Your task to perform on an android device: Open calendar and show me the third week of next month Image 0: 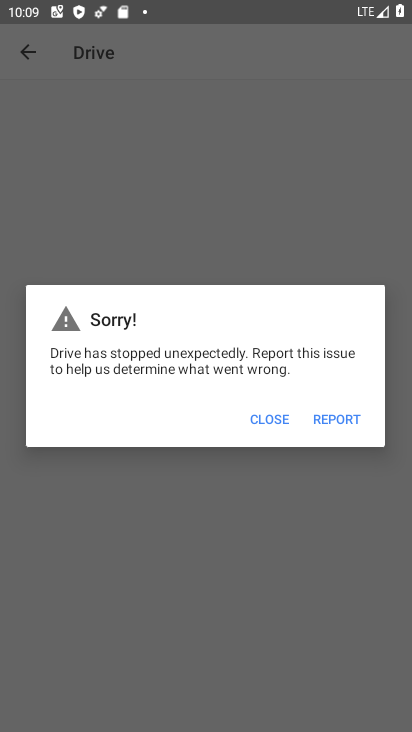
Step 0: press home button
Your task to perform on an android device: Open calendar and show me the third week of next month Image 1: 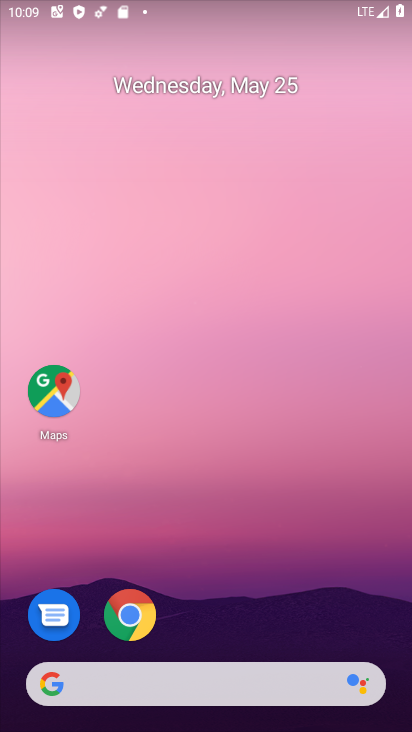
Step 1: drag from (265, 587) to (267, 13)
Your task to perform on an android device: Open calendar and show me the third week of next month Image 2: 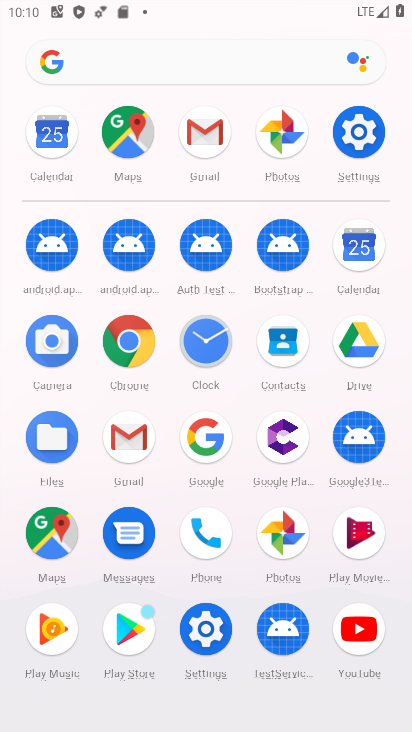
Step 2: click (61, 130)
Your task to perform on an android device: Open calendar and show me the third week of next month Image 3: 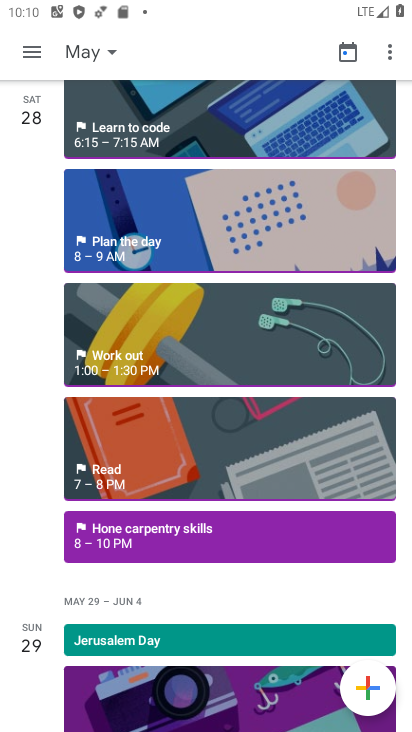
Step 3: click (33, 47)
Your task to perform on an android device: Open calendar and show me the third week of next month Image 4: 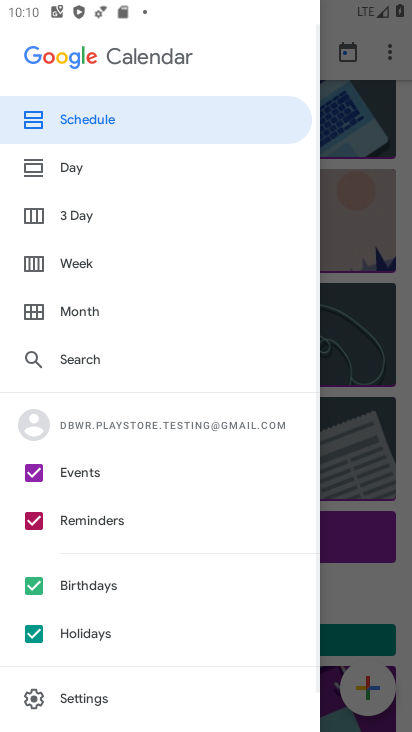
Step 4: click (57, 304)
Your task to perform on an android device: Open calendar and show me the third week of next month Image 5: 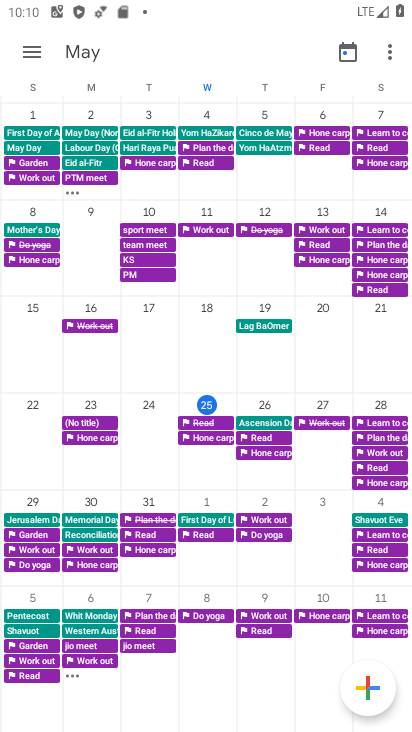
Step 5: drag from (355, 354) to (1, 372)
Your task to perform on an android device: Open calendar and show me the third week of next month Image 6: 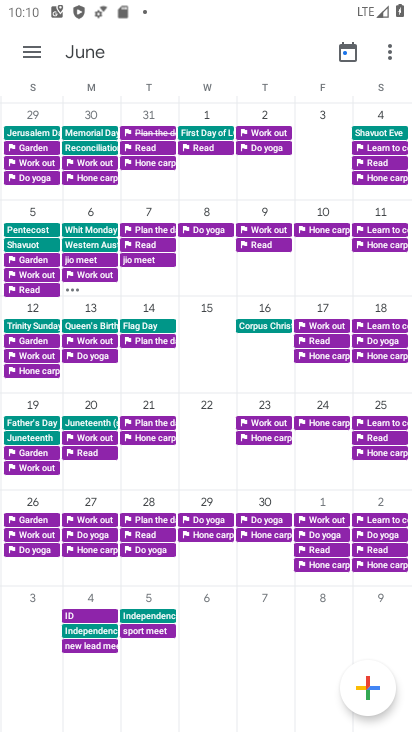
Step 6: click (40, 402)
Your task to perform on an android device: Open calendar and show me the third week of next month Image 7: 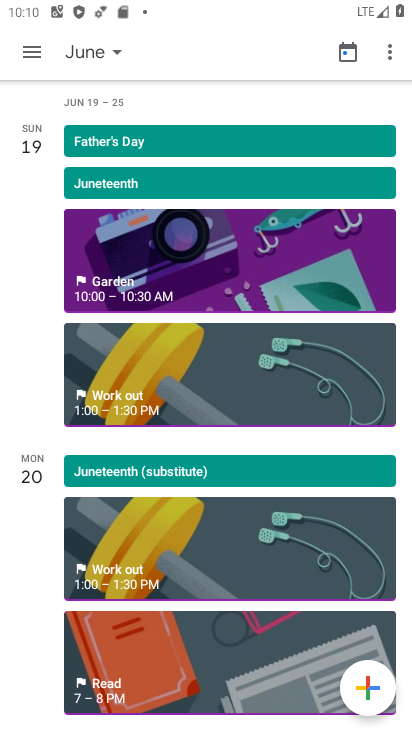
Step 7: click (33, 49)
Your task to perform on an android device: Open calendar and show me the third week of next month Image 8: 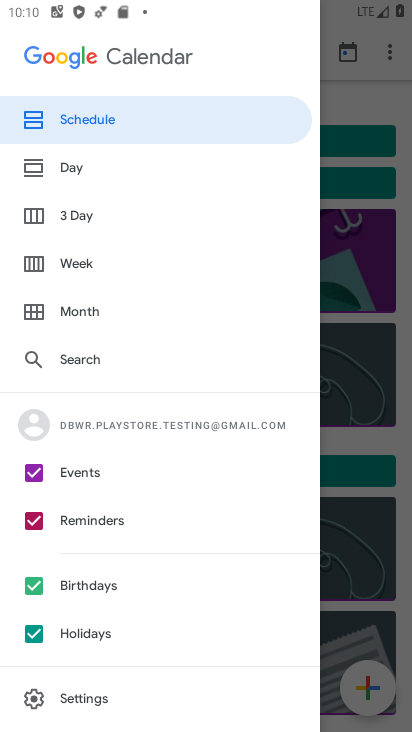
Step 8: click (76, 253)
Your task to perform on an android device: Open calendar and show me the third week of next month Image 9: 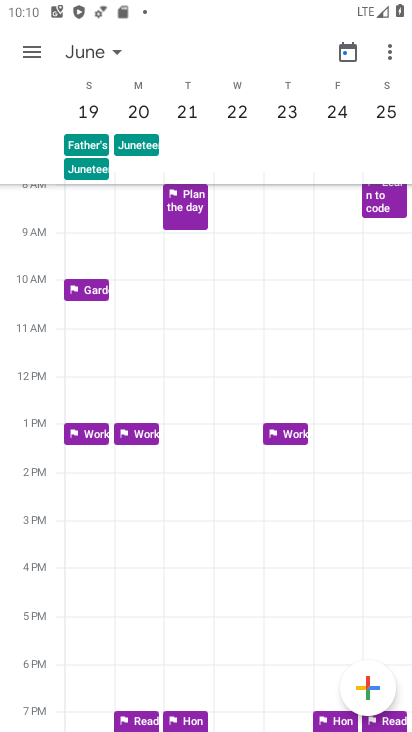
Step 9: task complete